Your task to perform on an android device: Find coffee shops on Maps Image 0: 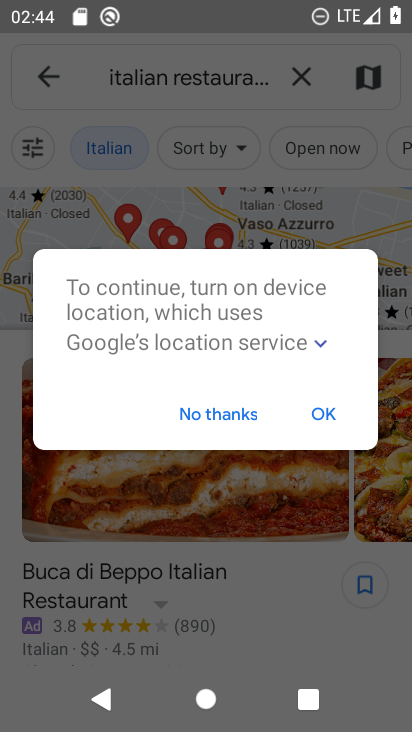
Step 0: press home button
Your task to perform on an android device: Find coffee shops on Maps Image 1: 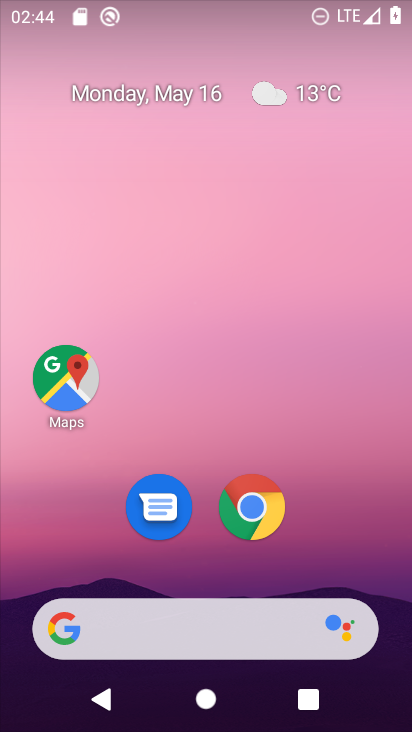
Step 1: click (68, 382)
Your task to perform on an android device: Find coffee shops on Maps Image 2: 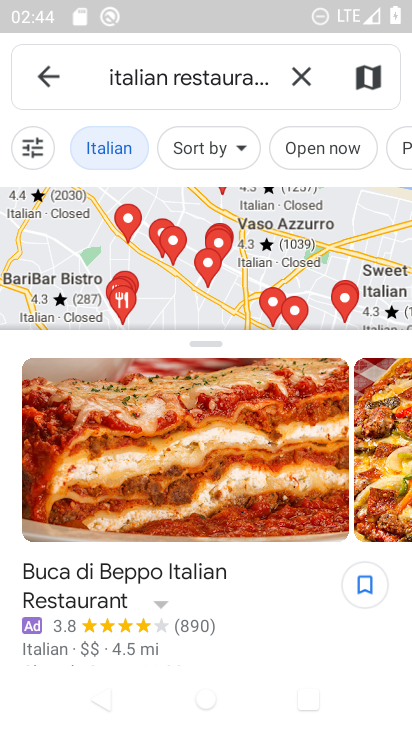
Step 2: click (292, 77)
Your task to perform on an android device: Find coffee shops on Maps Image 3: 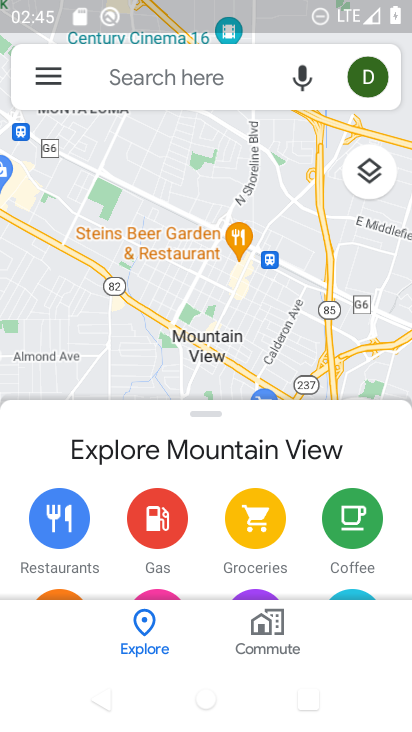
Step 3: click (179, 71)
Your task to perform on an android device: Find coffee shops on Maps Image 4: 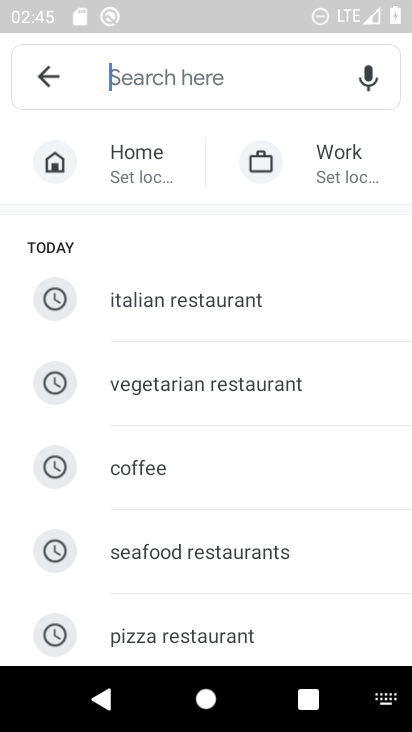
Step 4: click (184, 462)
Your task to perform on an android device: Find coffee shops on Maps Image 5: 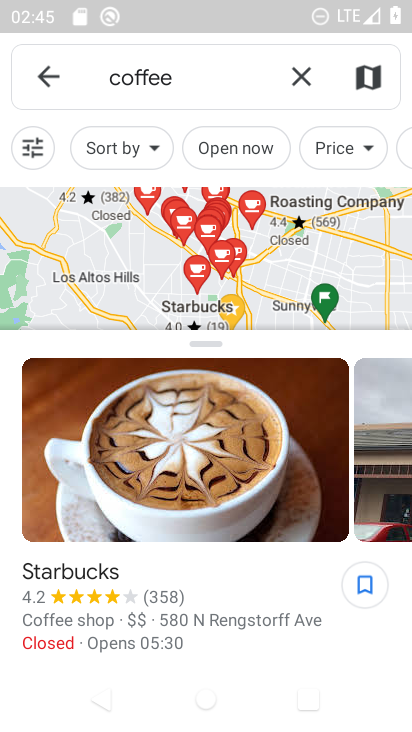
Step 5: task complete